Your task to perform on an android device: uninstall "Google Play services" Image 0: 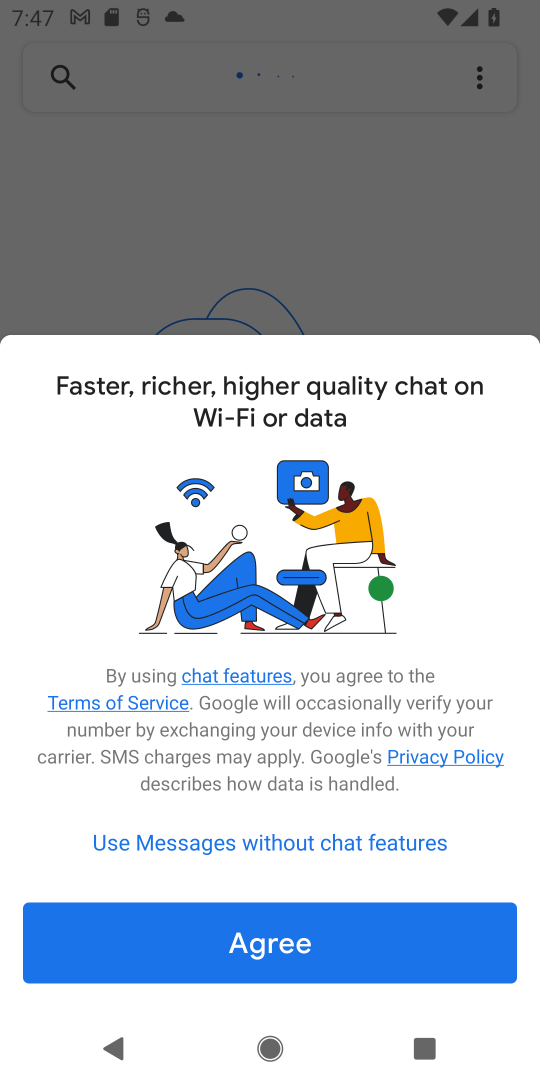
Step 0: press home button
Your task to perform on an android device: uninstall "Google Play services" Image 1: 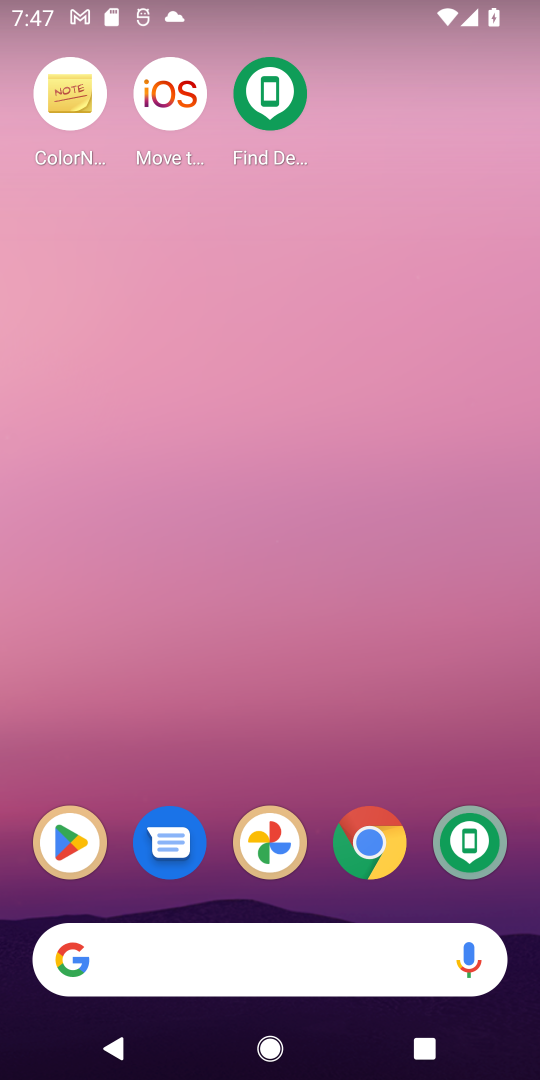
Step 1: click (56, 838)
Your task to perform on an android device: uninstall "Google Play services" Image 2: 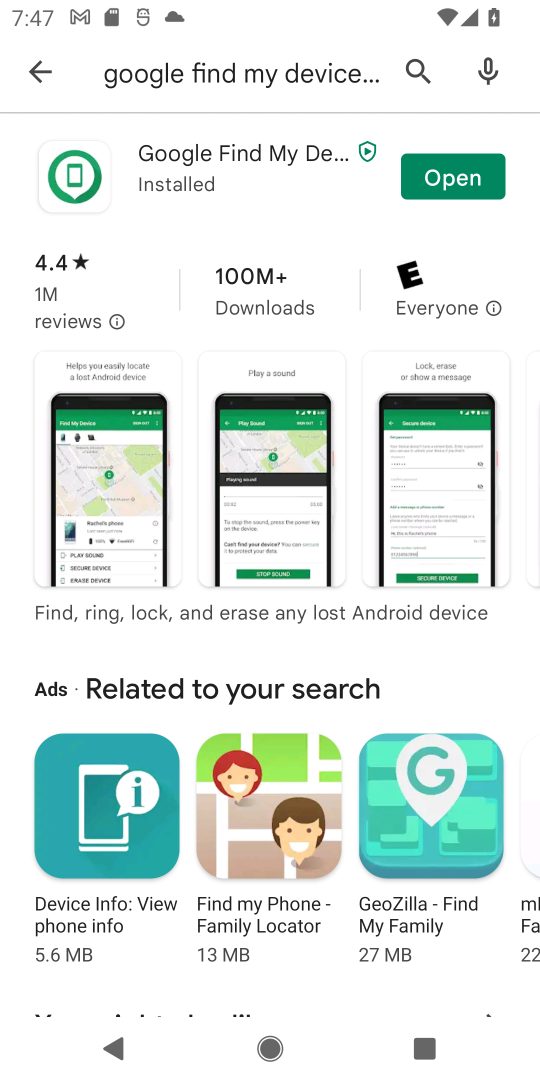
Step 2: click (260, 78)
Your task to perform on an android device: uninstall "Google Play services" Image 3: 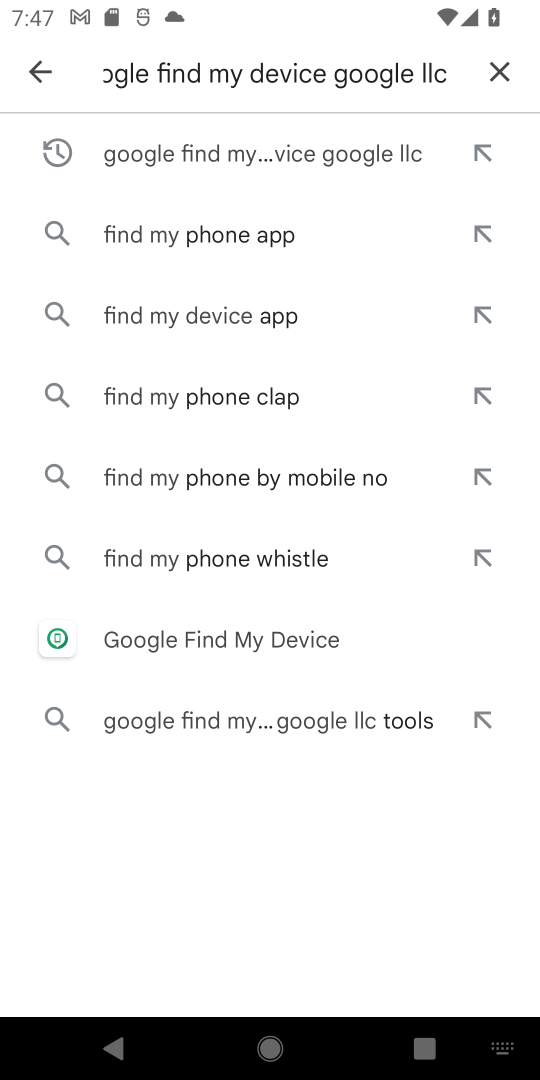
Step 3: click (498, 62)
Your task to perform on an android device: uninstall "Google Play services" Image 4: 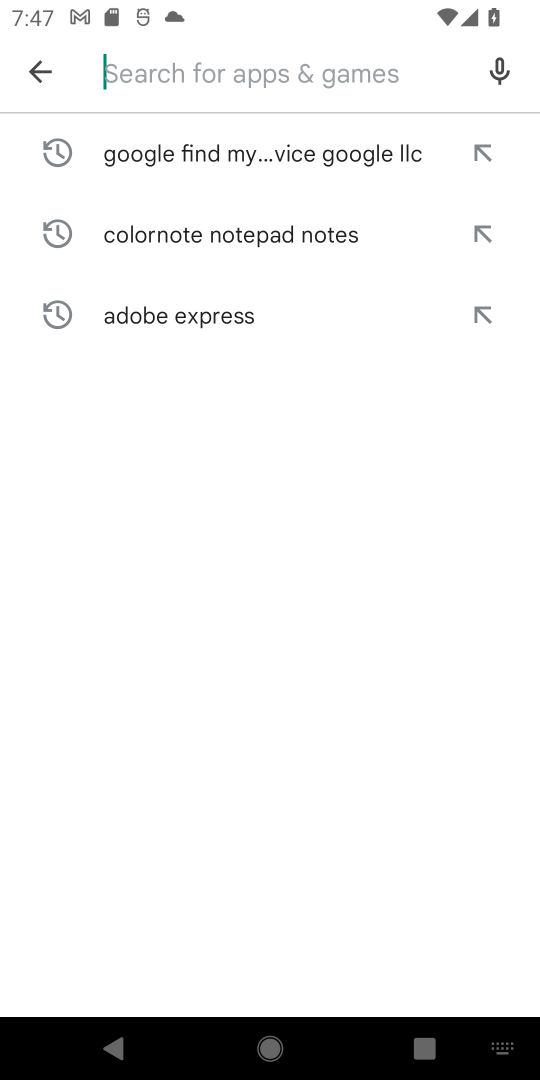
Step 4: type "google play services"
Your task to perform on an android device: uninstall "Google Play services" Image 5: 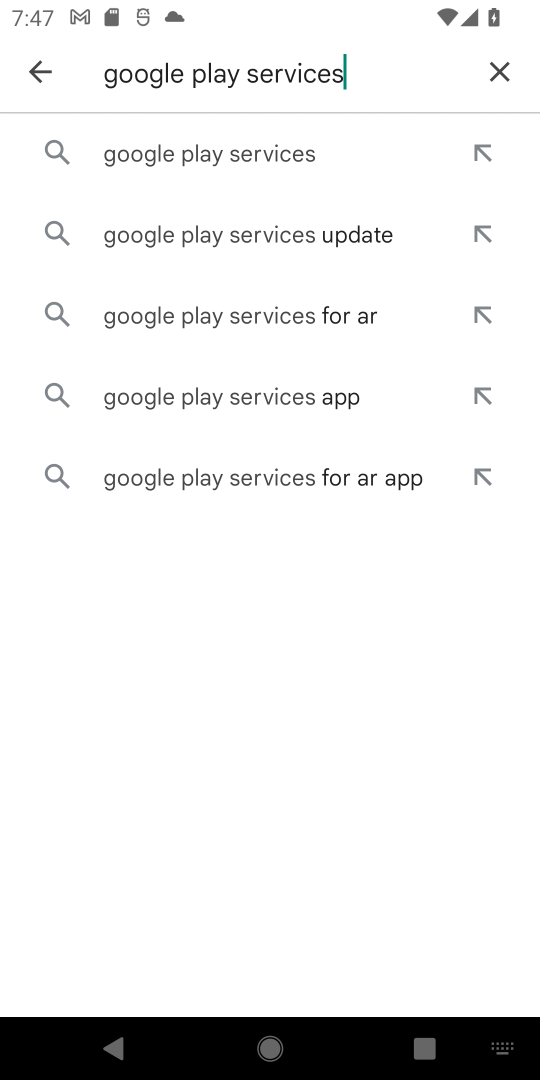
Step 5: click (220, 143)
Your task to perform on an android device: uninstall "Google Play services" Image 6: 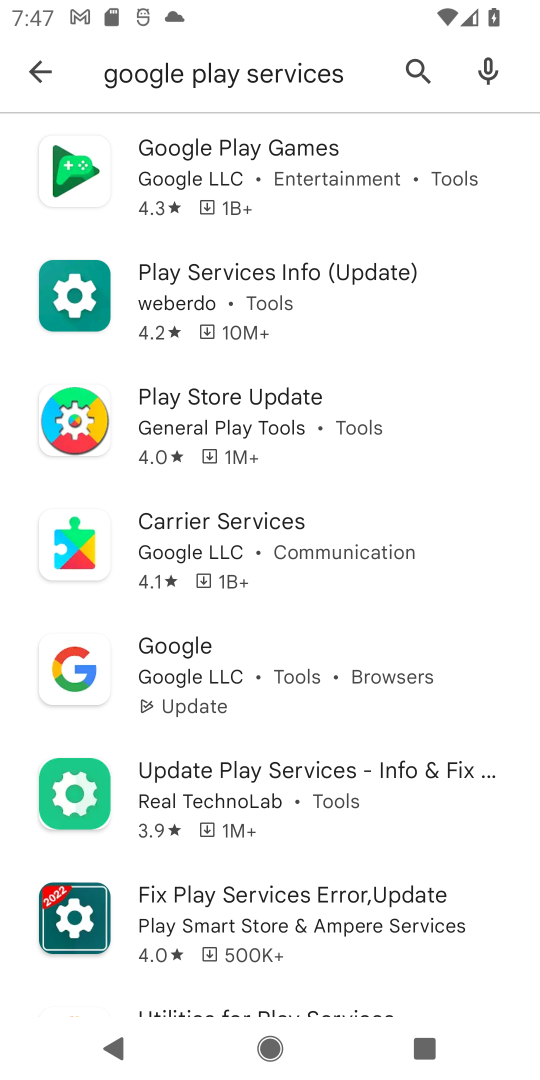
Step 6: click (234, 281)
Your task to perform on an android device: uninstall "Google Play services" Image 7: 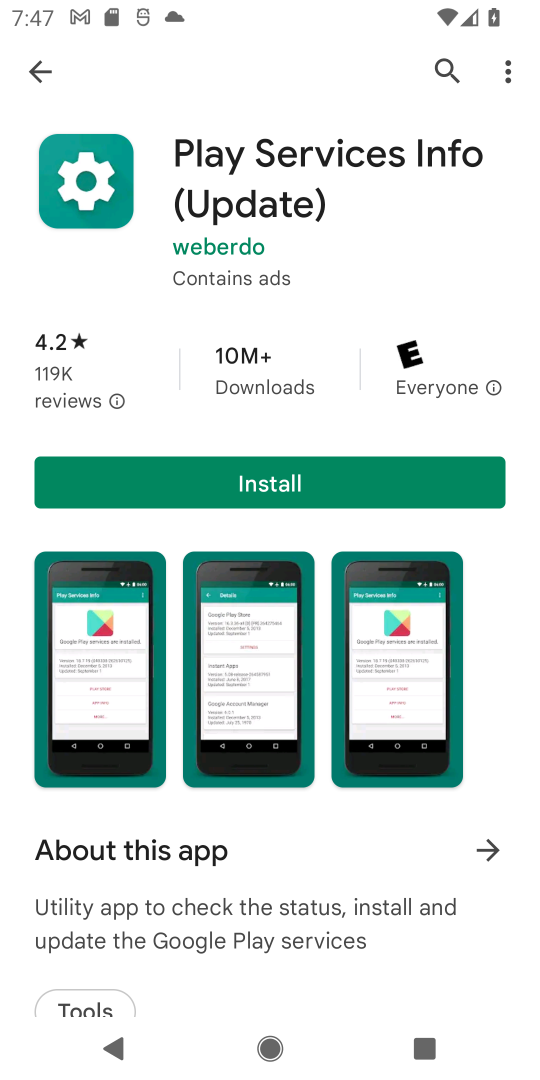
Step 7: task complete